Your task to perform on an android device: turn off data saver in the chrome app Image 0: 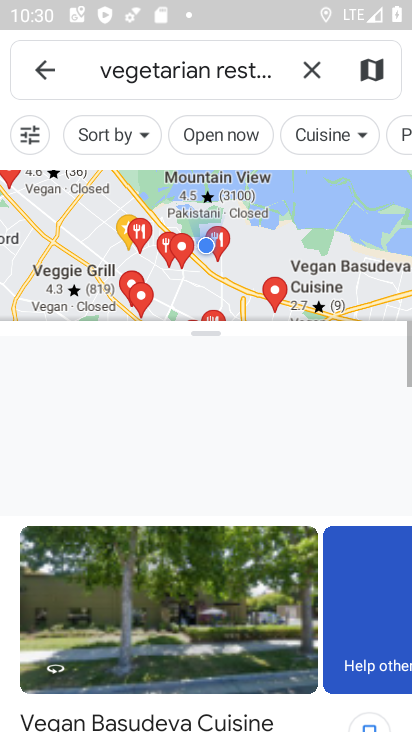
Step 0: press home button
Your task to perform on an android device: turn off data saver in the chrome app Image 1: 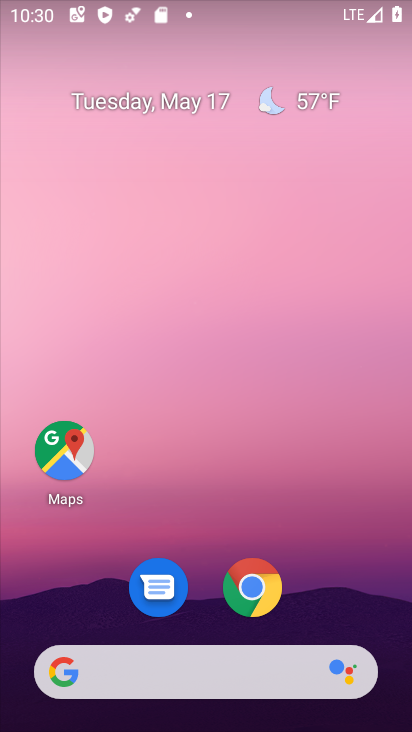
Step 1: drag from (396, 651) to (289, 78)
Your task to perform on an android device: turn off data saver in the chrome app Image 2: 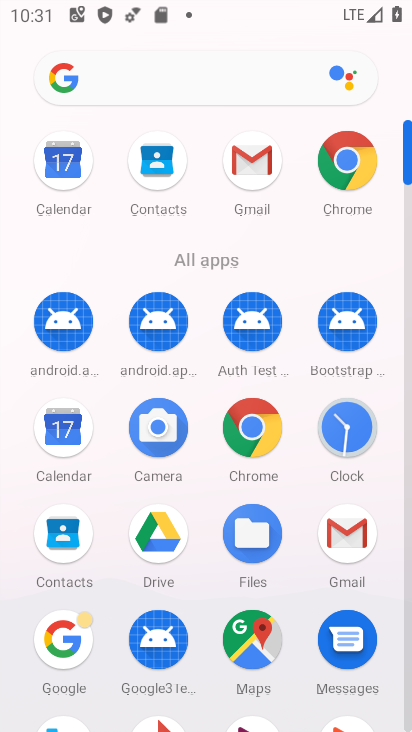
Step 2: click (351, 179)
Your task to perform on an android device: turn off data saver in the chrome app Image 3: 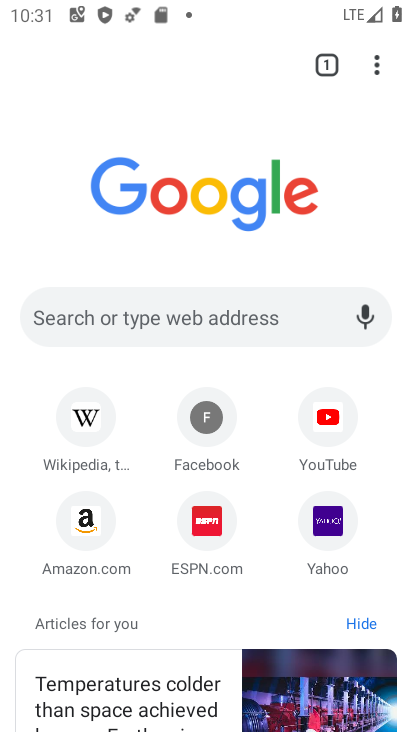
Step 3: click (379, 71)
Your task to perform on an android device: turn off data saver in the chrome app Image 4: 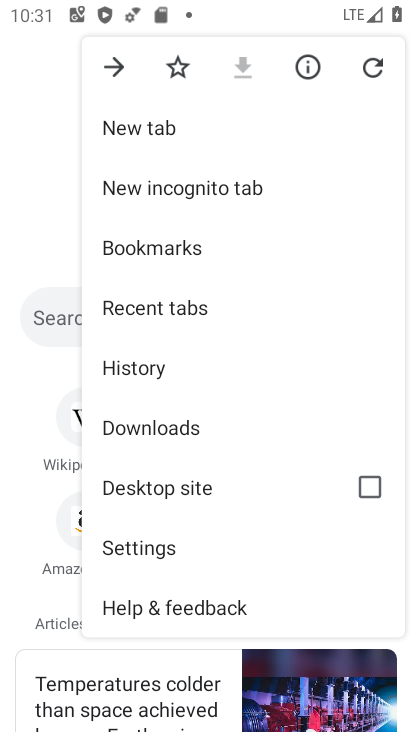
Step 4: click (203, 541)
Your task to perform on an android device: turn off data saver in the chrome app Image 5: 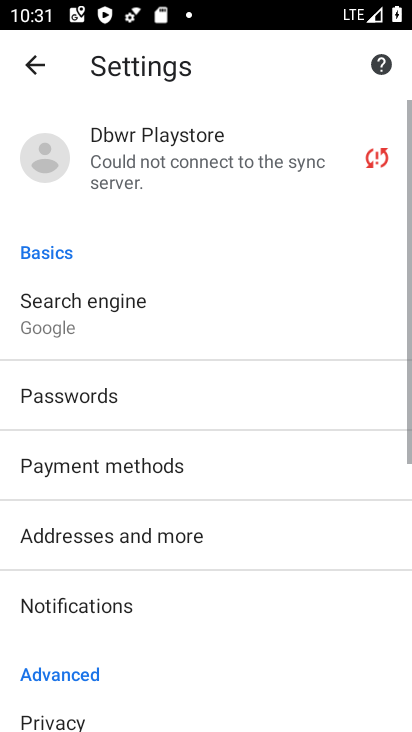
Step 5: drag from (154, 635) to (178, 207)
Your task to perform on an android device: turn off data saver in the chrome app Image 6: 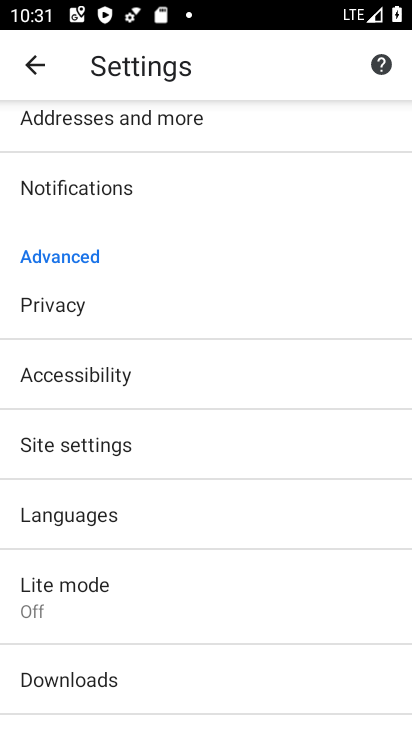
Step 6: click (147, 612)
Your task to perform on an android device: turn off data saver in the chrome app Image 7: 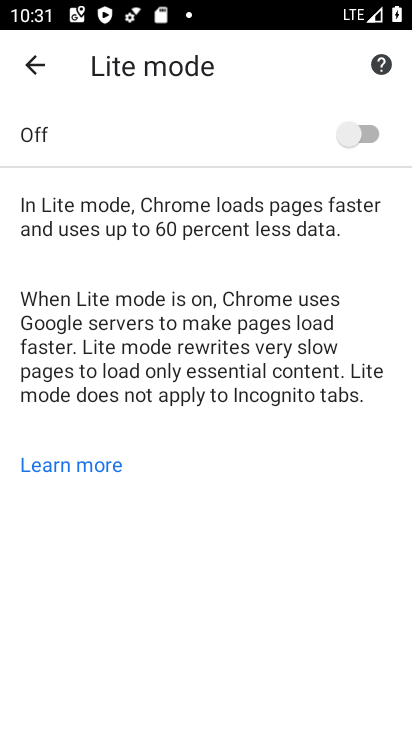
Step 7: task complete